Your task to perform on an android device: turn notification dots off Image 0: 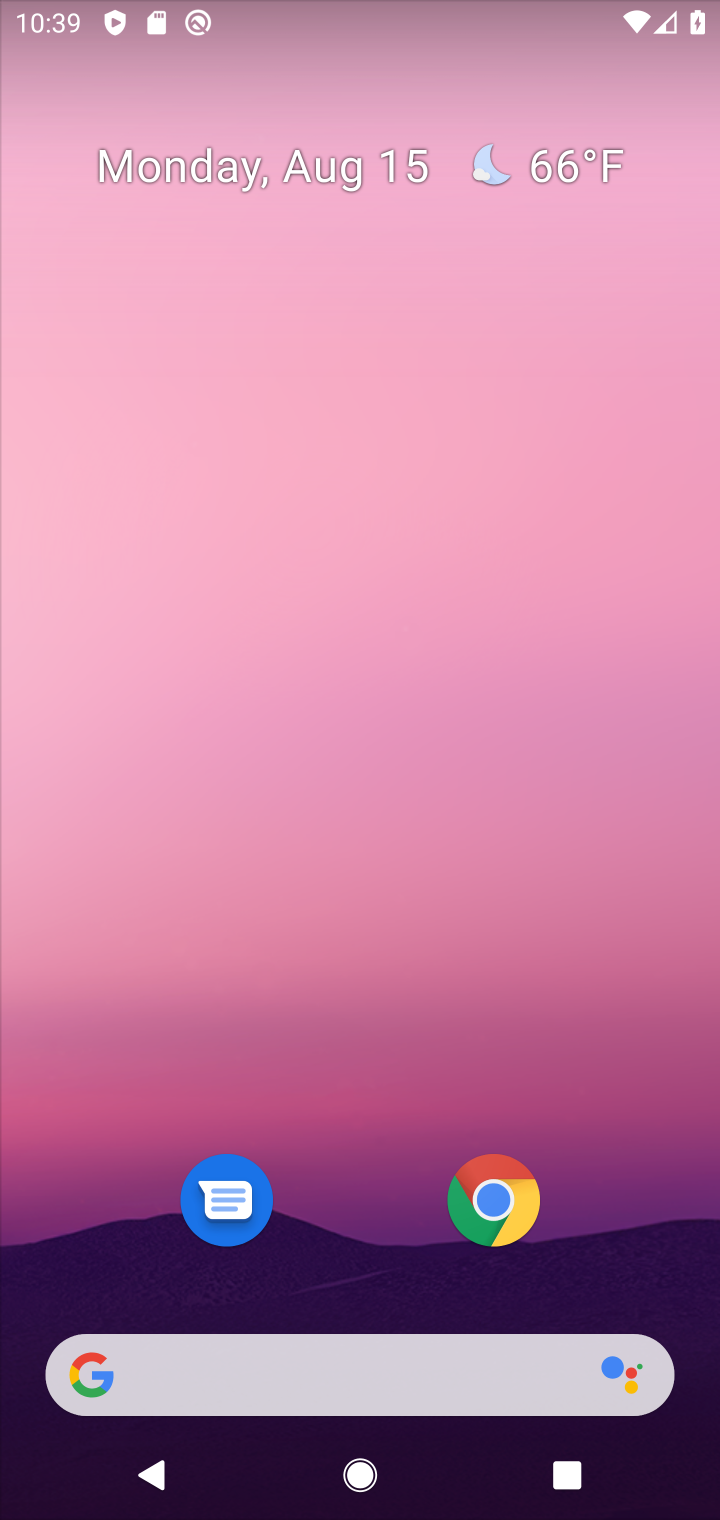
Step 0: drag from (343, 936) to (345, 170)
Your task to perform on an android device: turn notification dots off Image 1: 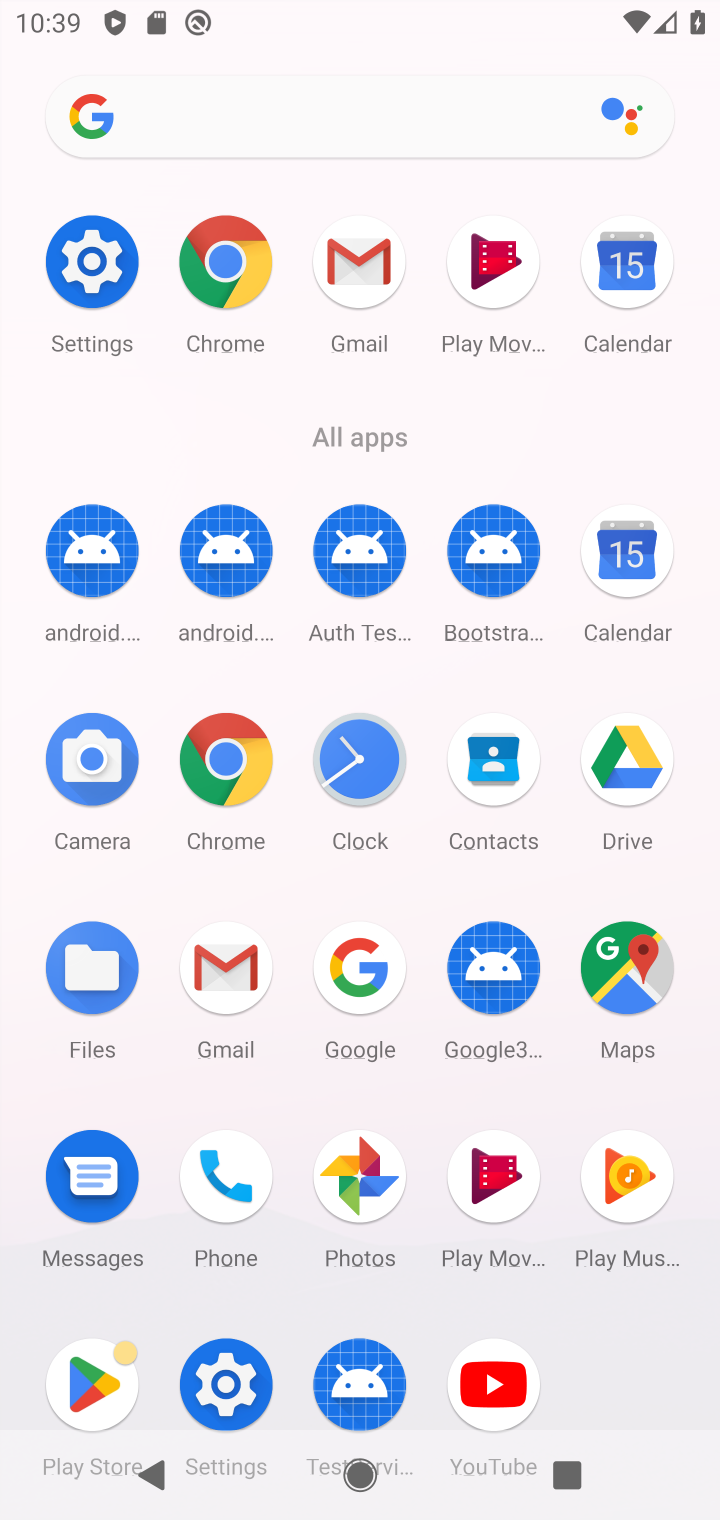
Step 1: click (208, 1390)
Your task to perform on an android device: turn notification dots off Image 2: 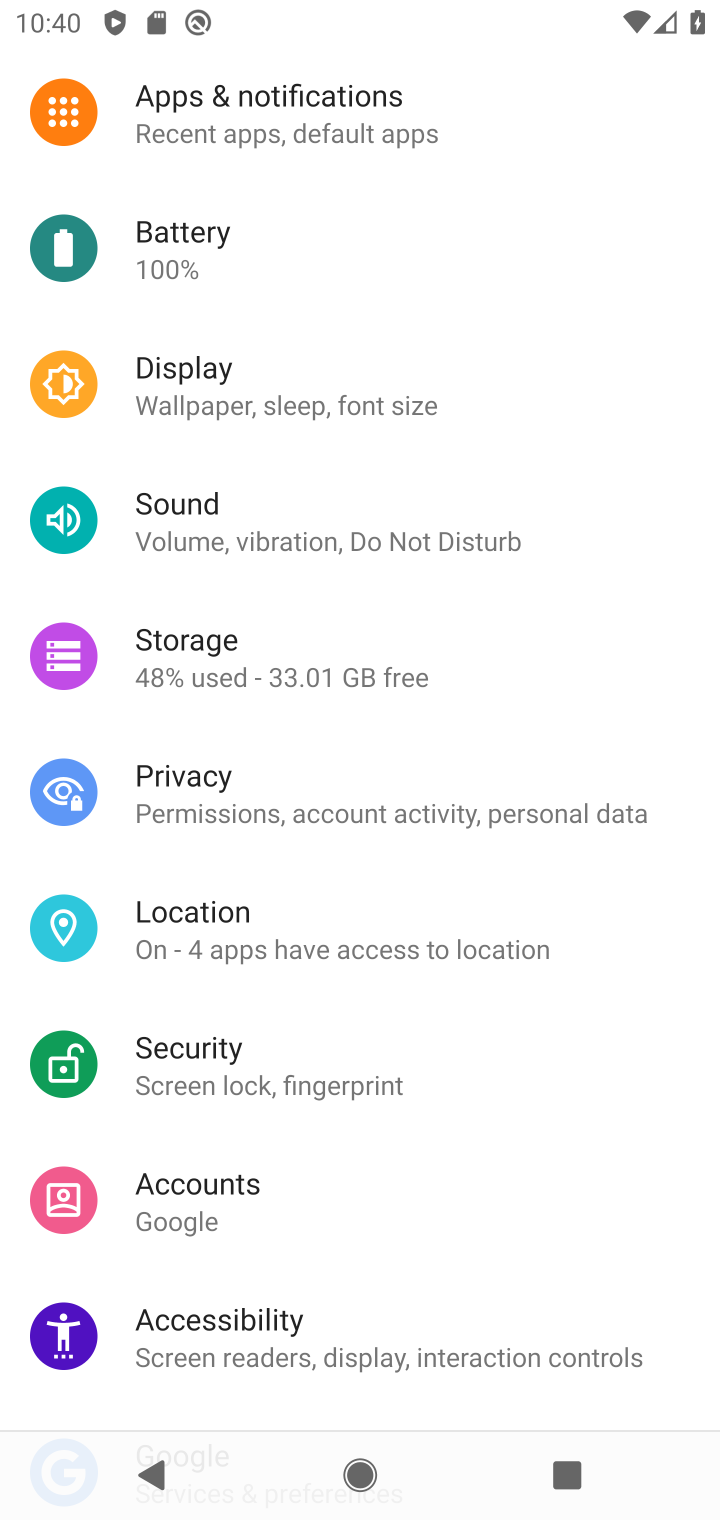
Step 2: click (294, 149)
Your task to perform on an android device: turn notification dots off Image 3: 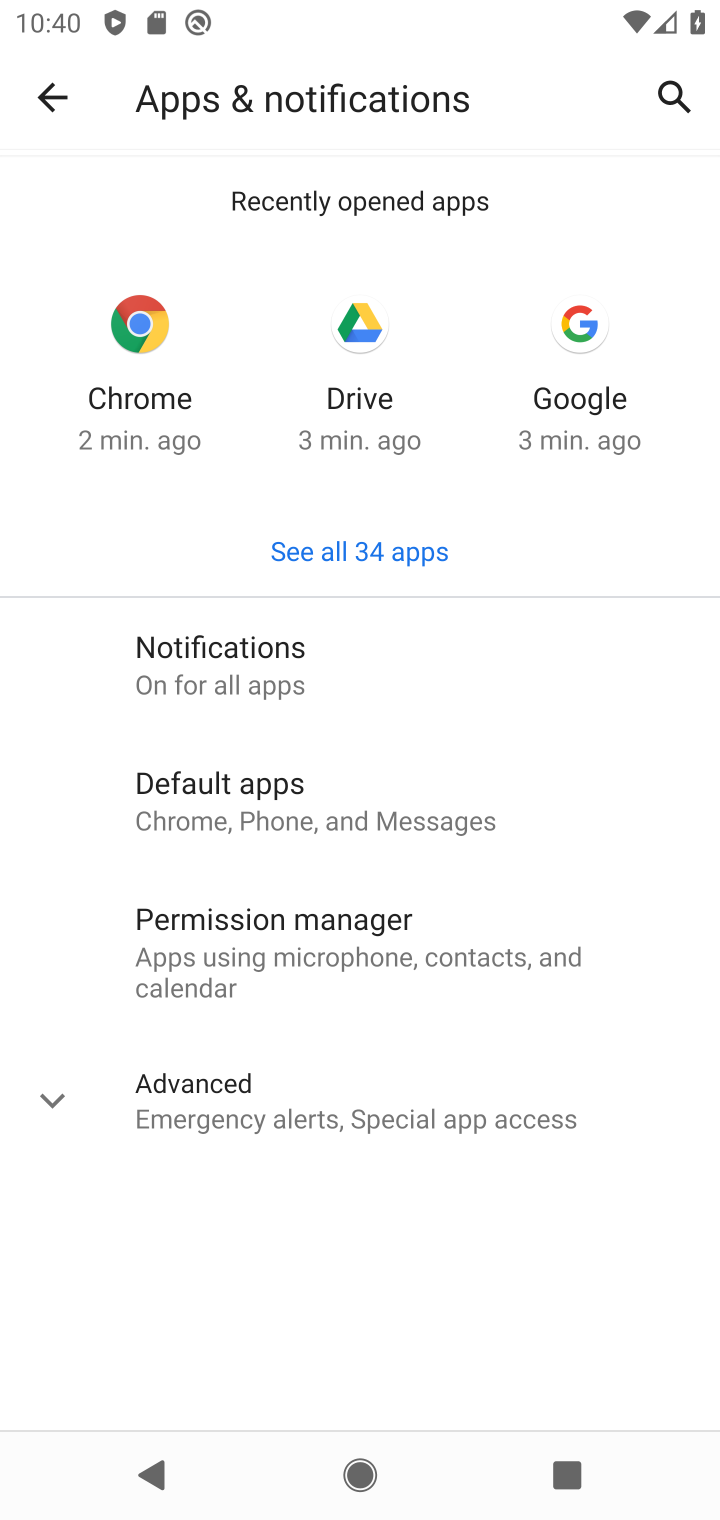
Step 3: click (274, 686)
Your task to perform on an android device: turn notification dots off Image 4: 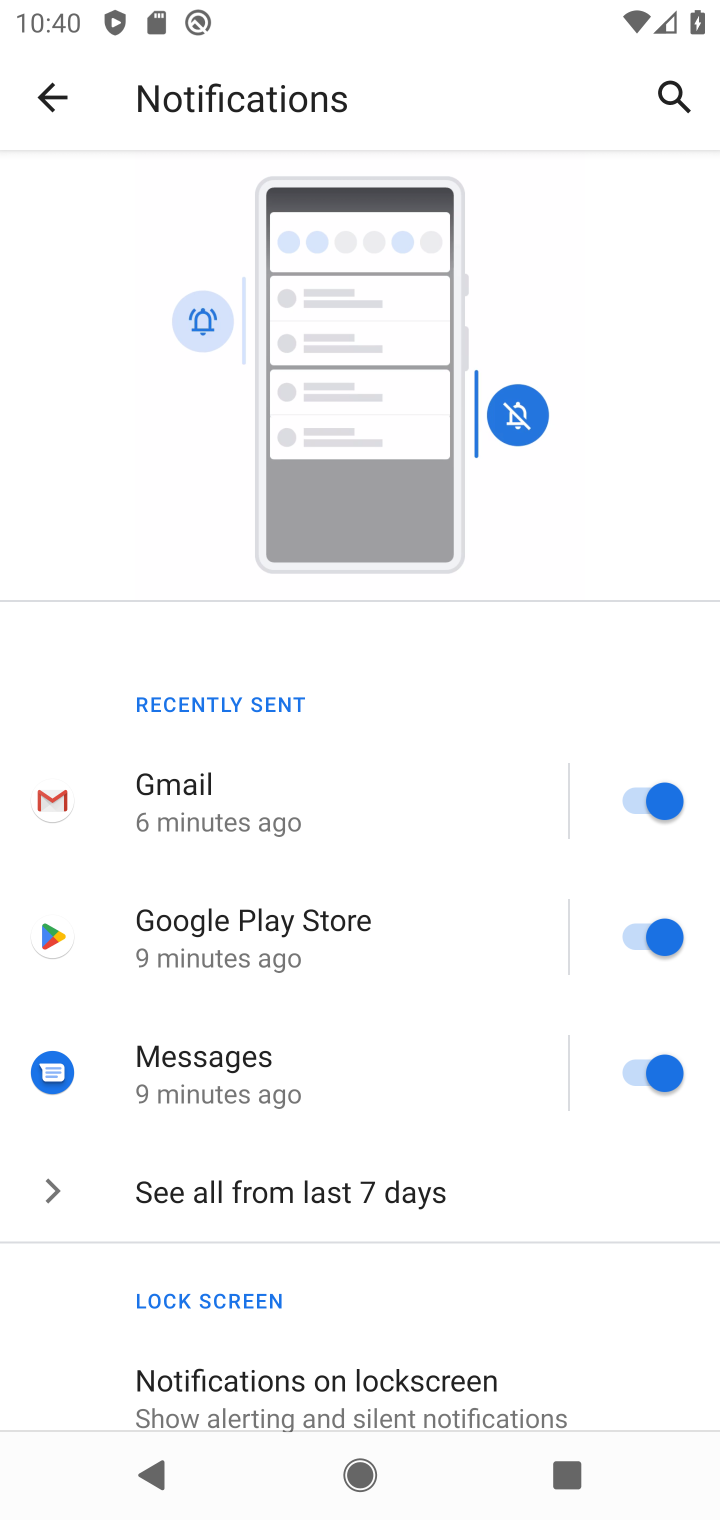
Step 4: drag from (364, 1306) to (433, 477)
Your task to perform on an android device: turn notification dots off Image 5: 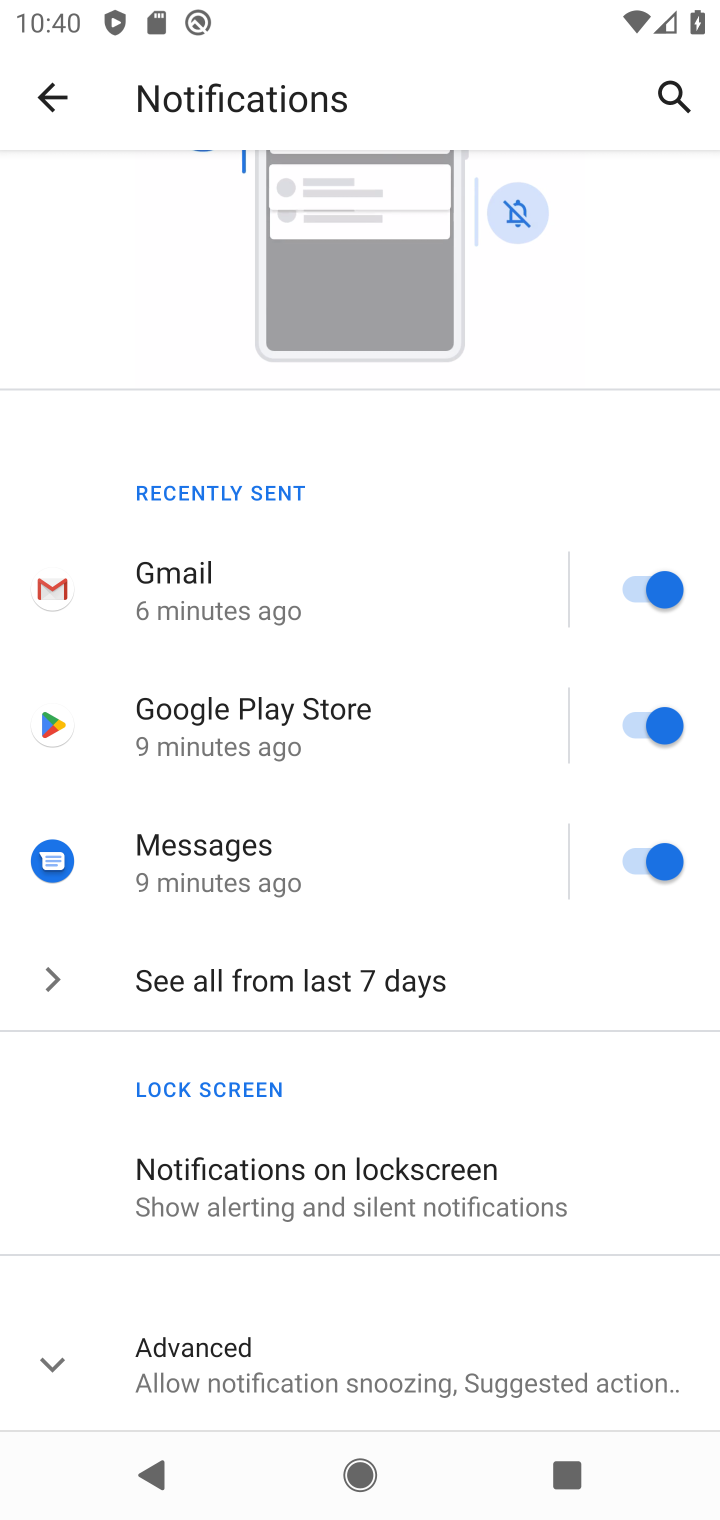
Step 5: drag from (304, 1251) to (313, 477)
Your task to perform on an android device: turn notification dots off Image 6: 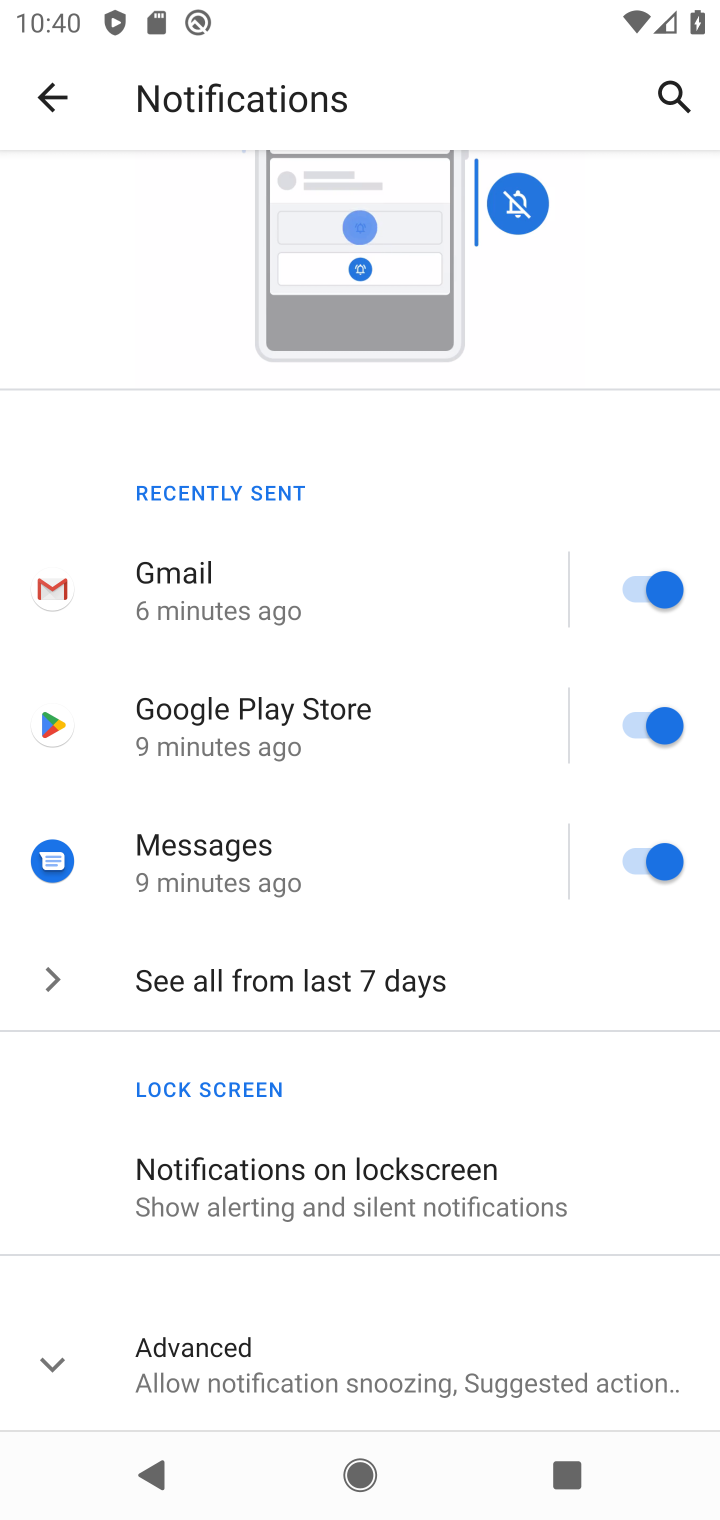
Step 6: click (250, 1357)
Your task to perform on an android device: turn notification dots off Image 7: 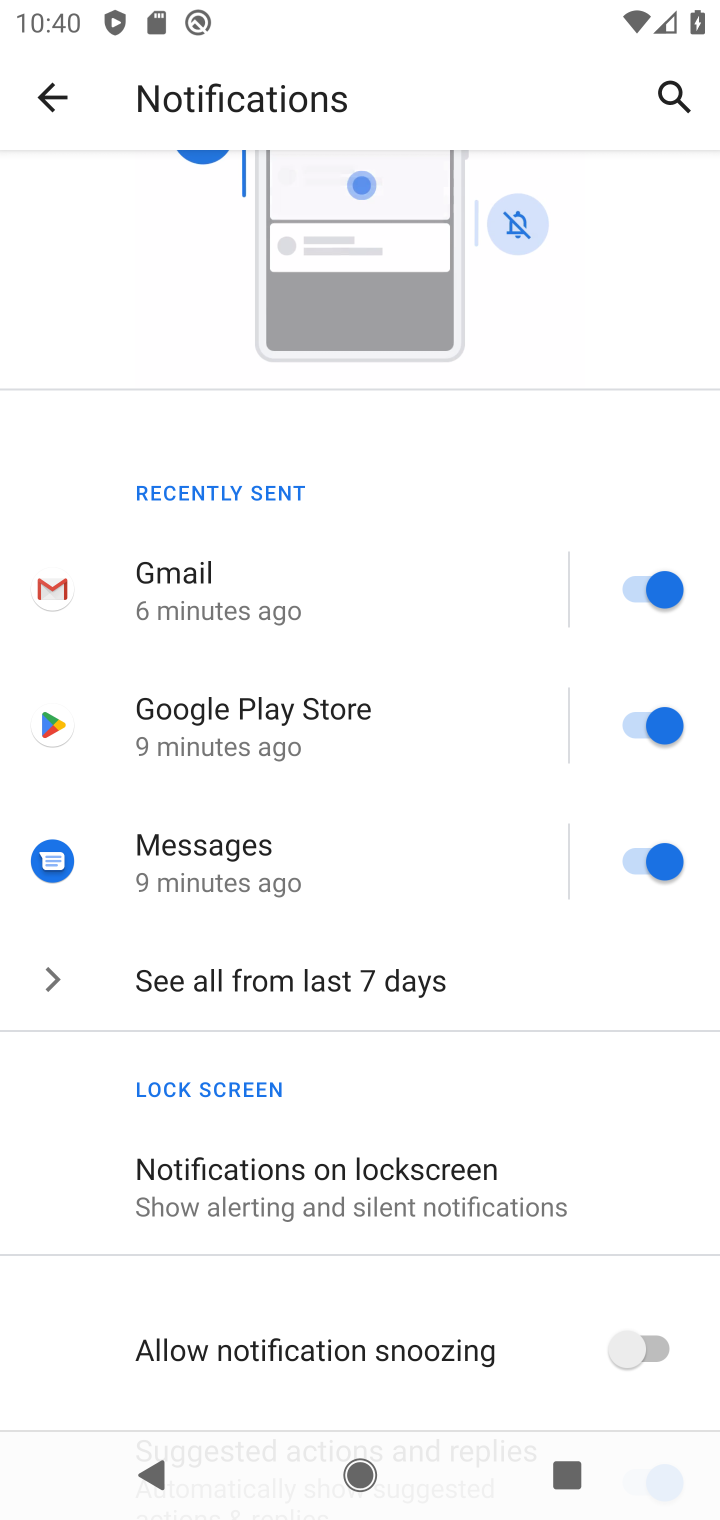
Step 7: drag from (338, 1152) to (348, 515)
Your task to perform on an android device: turn notification dots off Image 8: 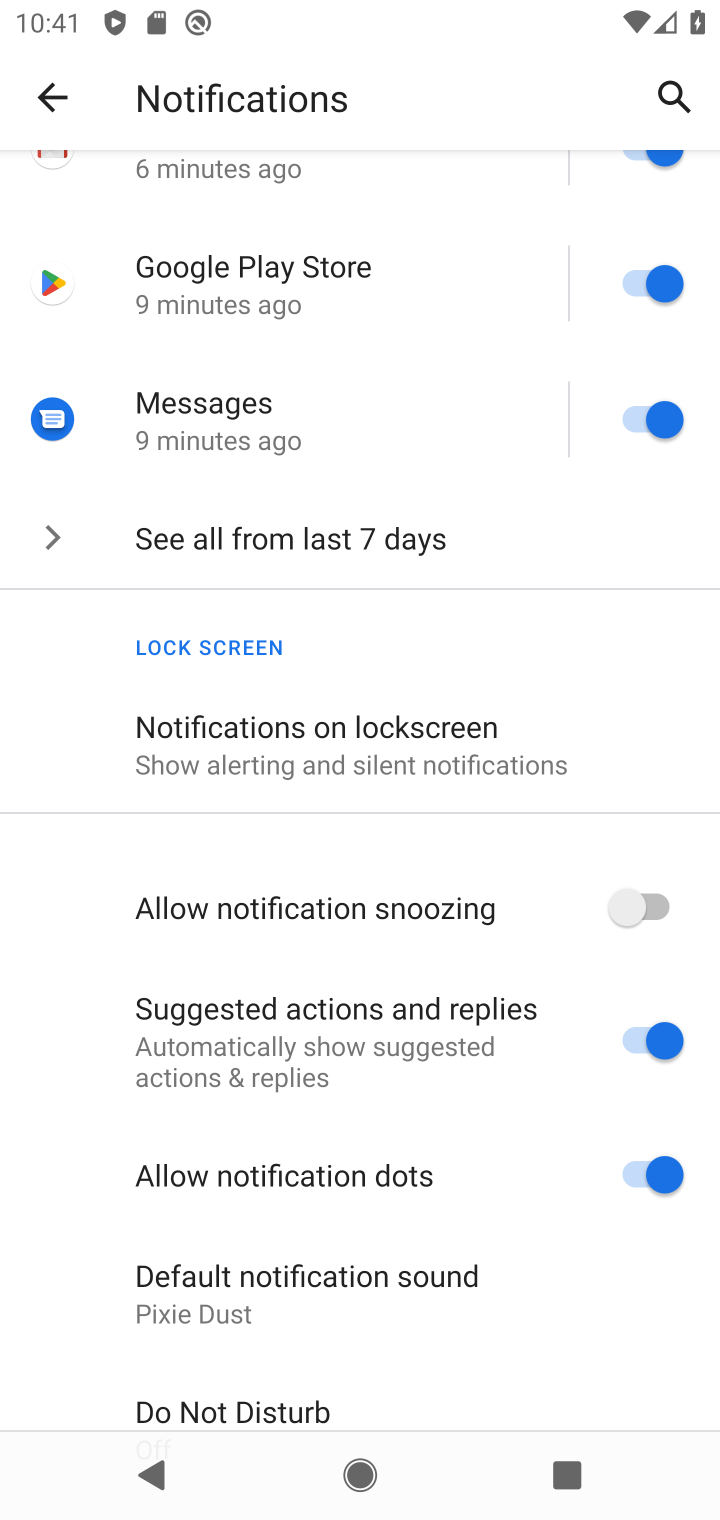
Step 8: click (587, 1198)
Your task to perform on an android device: turn notification dots off Image 9: 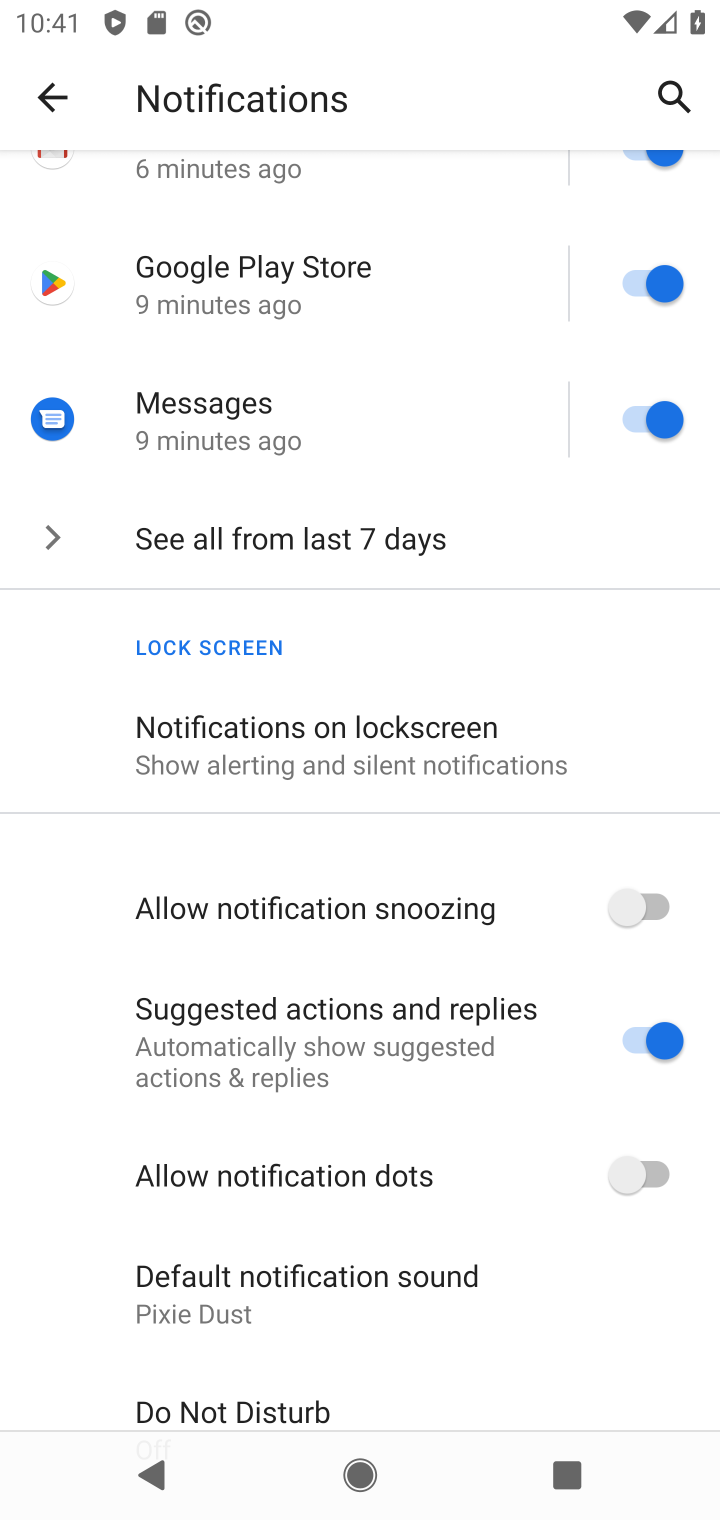
Step 9: task complete